Your task to perform on an android device: turn off wifi Image 0: 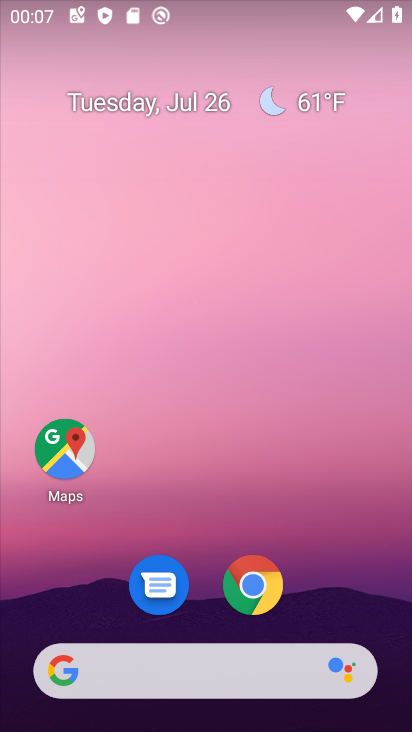
Step 0: drag from (319, 548) to (375, 9)
Your task to perform on an android device: turn off wifi Image 1: 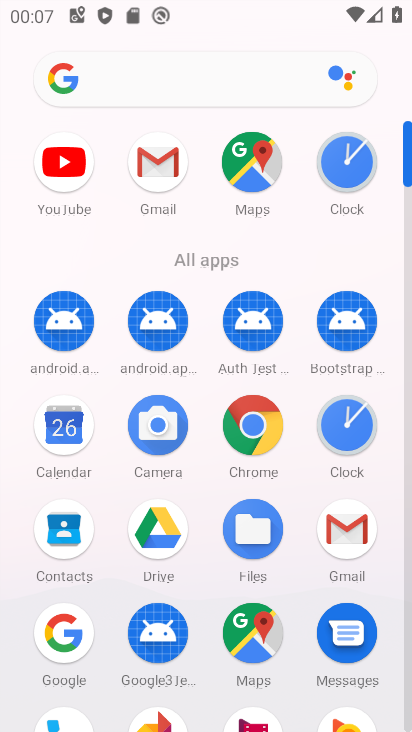
Step 1: drag from (206, 439) to (234, 167)
Your task to perform on an android device: turn off wifi Image 2: 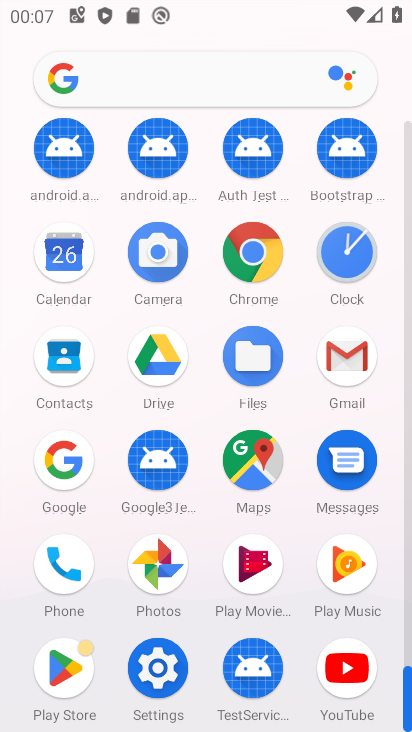
Step 2: click (152, 674)
Your task to perform on an android device: turn off wifi Image 3: 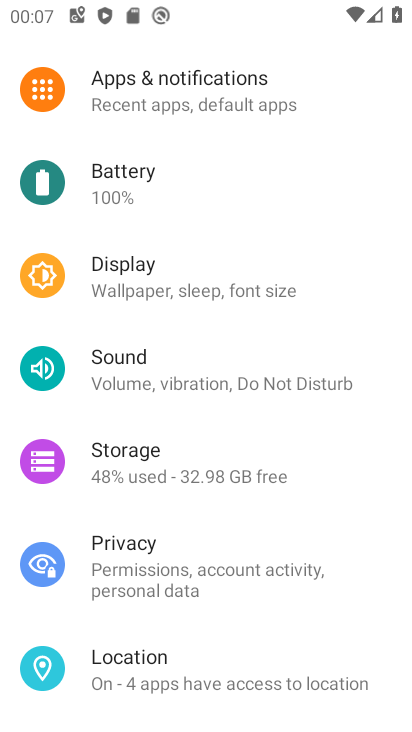
Step 3: drag from (201, 175) to (238, 517)
Your task to perform on an android device: turn off wifi Image 4: 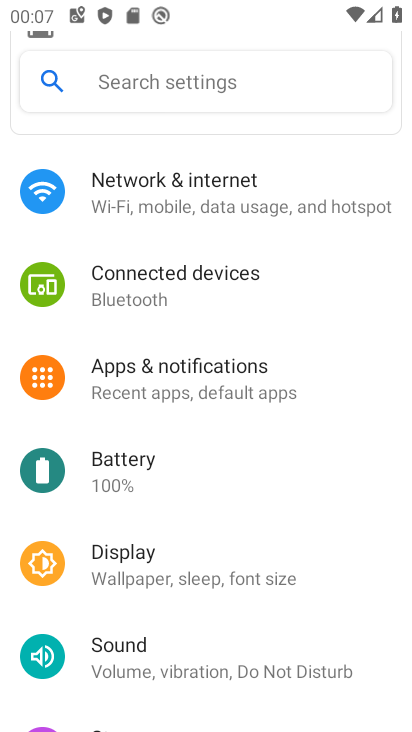
Step 4: click (193, 193)
Your task to perform on an android device: turn off wifi Image 5: 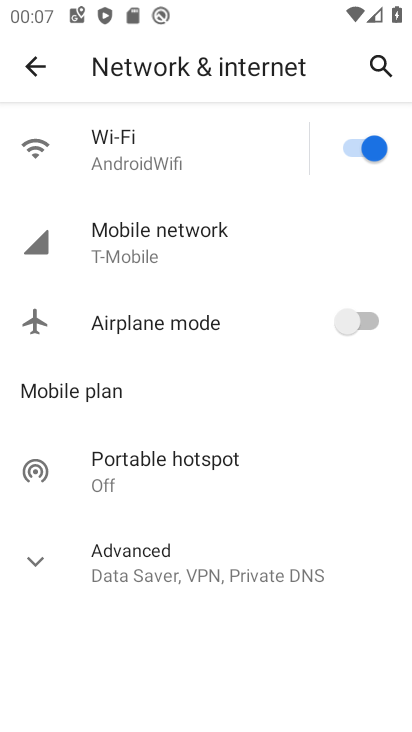
Step 5: click (364, 149)
Your task to perform on an android device: turn off wifi Image 6: 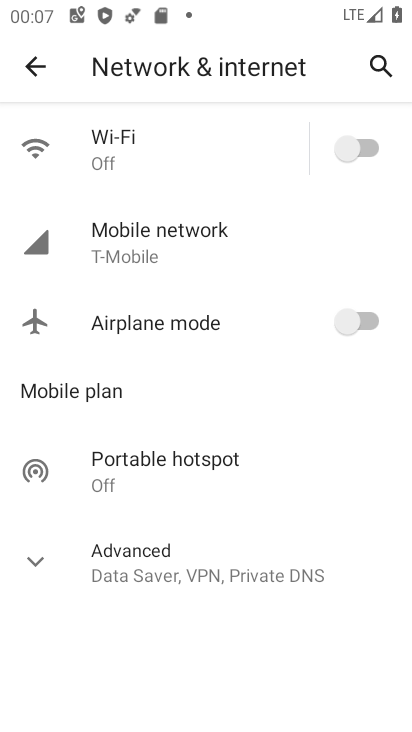
Step 6: task complete